Your task to perform on an android device: Open maps Image 0: 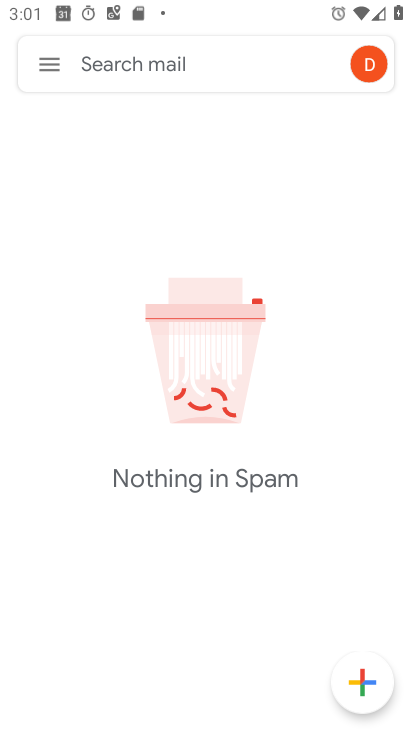
Step 0: press home button
Your task to perform on an android device: Open maps Image 1: 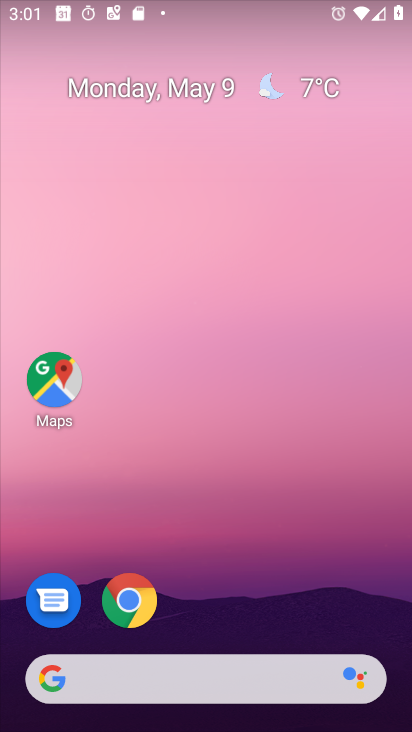
Step 1: click (55, 388)
Your task to perform on an android device: Open maps Image 2: 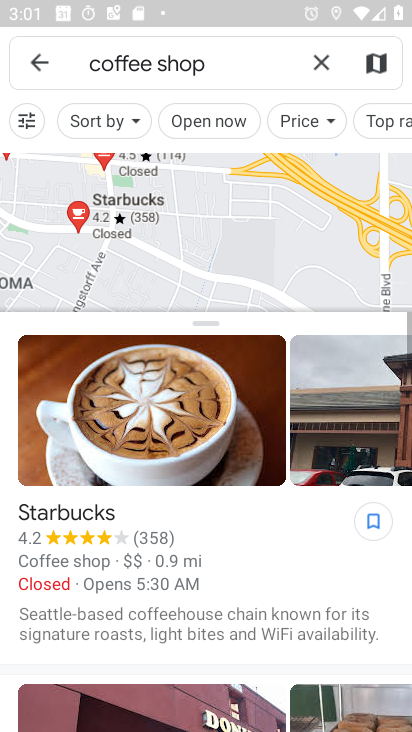
Step 2: task complete